Your task to perform on an android device: empty trash in google photos Image 0: 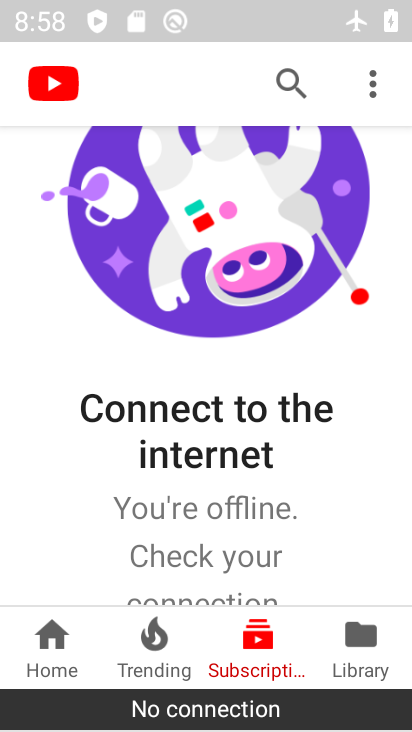
Step 0: press home button
Your task to perform on an android device: empty trash in google photos Image 1: 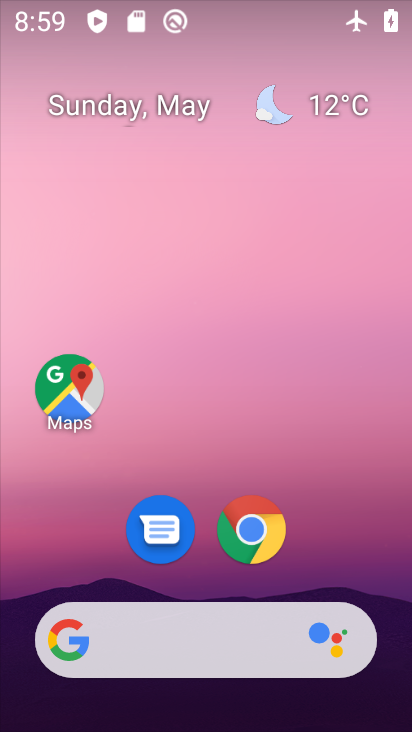
Step 1: drag from (338, 556) to (239, 47)
Your task to perform on an android device: empty trash in google photos Image 2: 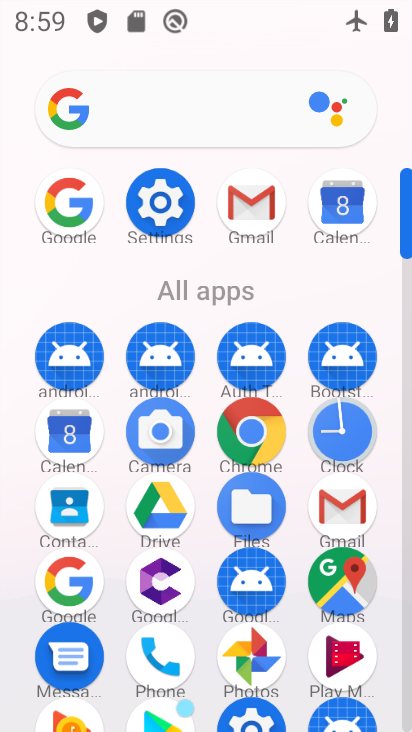
Step 2: drag from (199, 633) to (242, 240)
Your task to perform on an android device: empty trash in google photos Image 3: 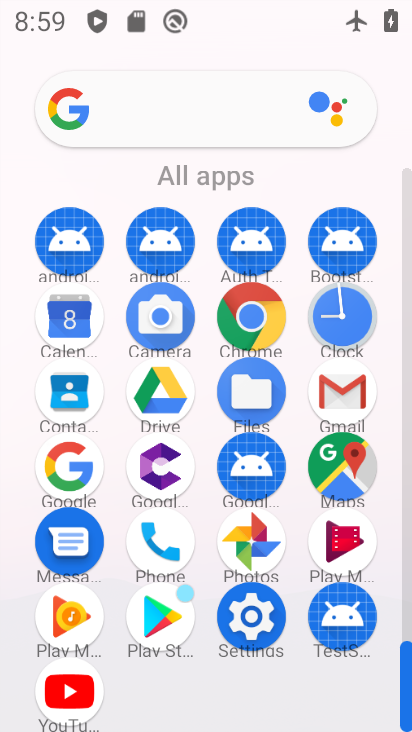
Step 3: click (264, 533)
Your task to perform on an android device: empty trash in google photos Image 4: 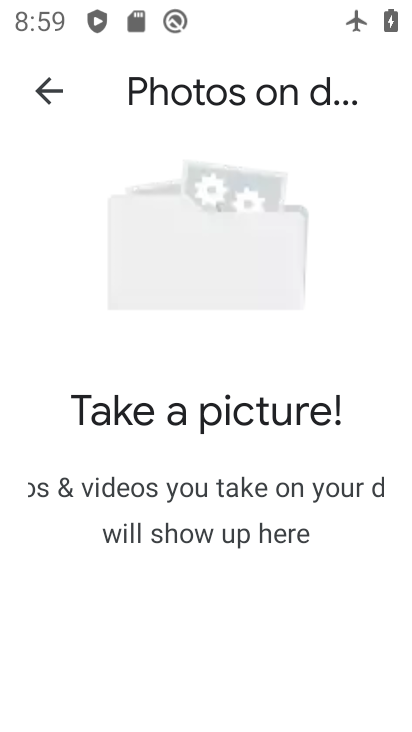
Step 4: click (44, 95)
Your task to perform on an android device: empty trash in google photos Image 5: 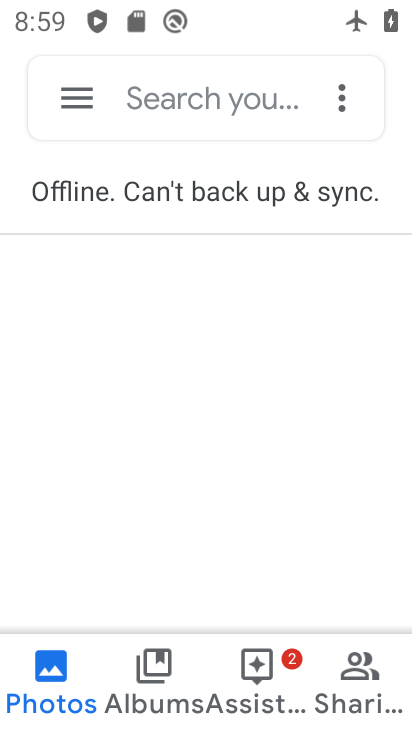
Step 5: click (73, 99)
Your task to perform on an android device: empty trash in google photos Image 6: 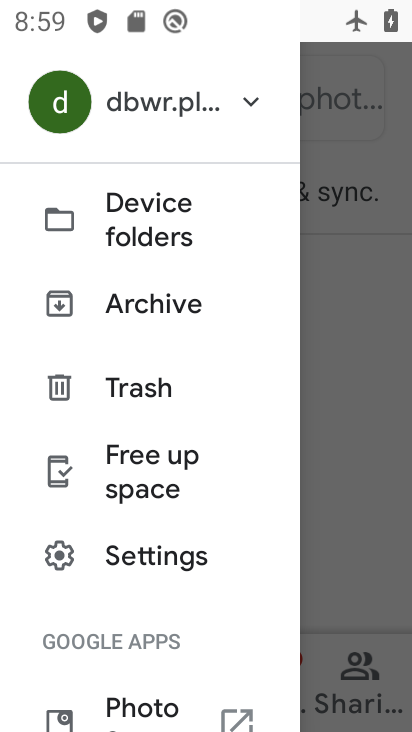
Step 6: click (167, 378)
Your task to perform on an android device: empty trash in google photos Image 7: 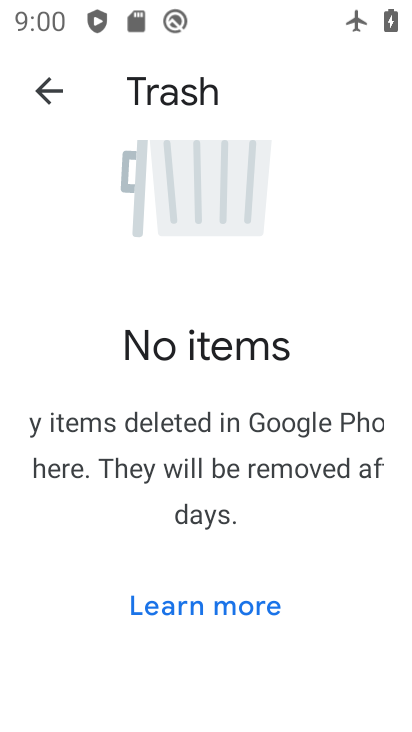
Step 7: task complete